Your task to perform on an android device: change notifications settings Image 0: 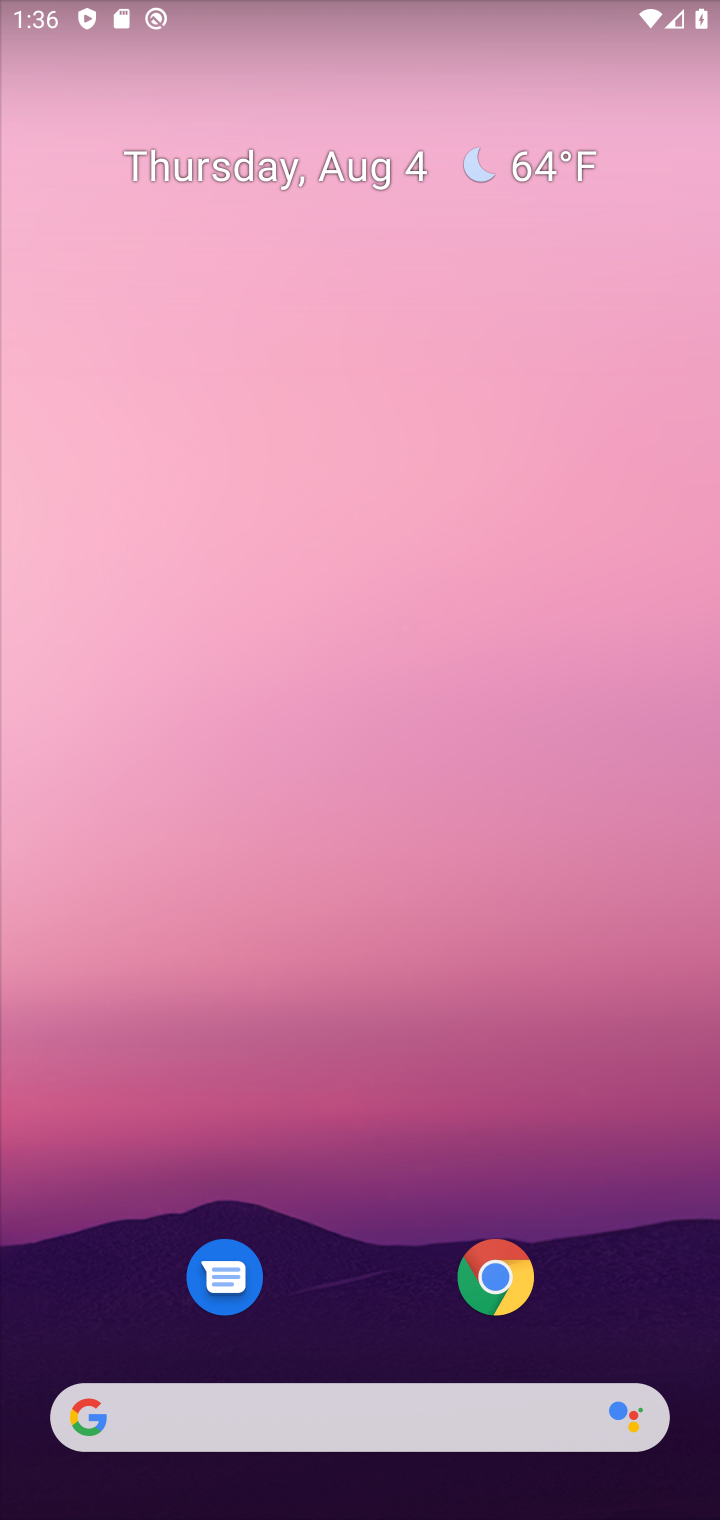
Step 0: drag from (310, 1331) to (427, 268)
Your task to perform on an android device: change notifications settings Image 1: 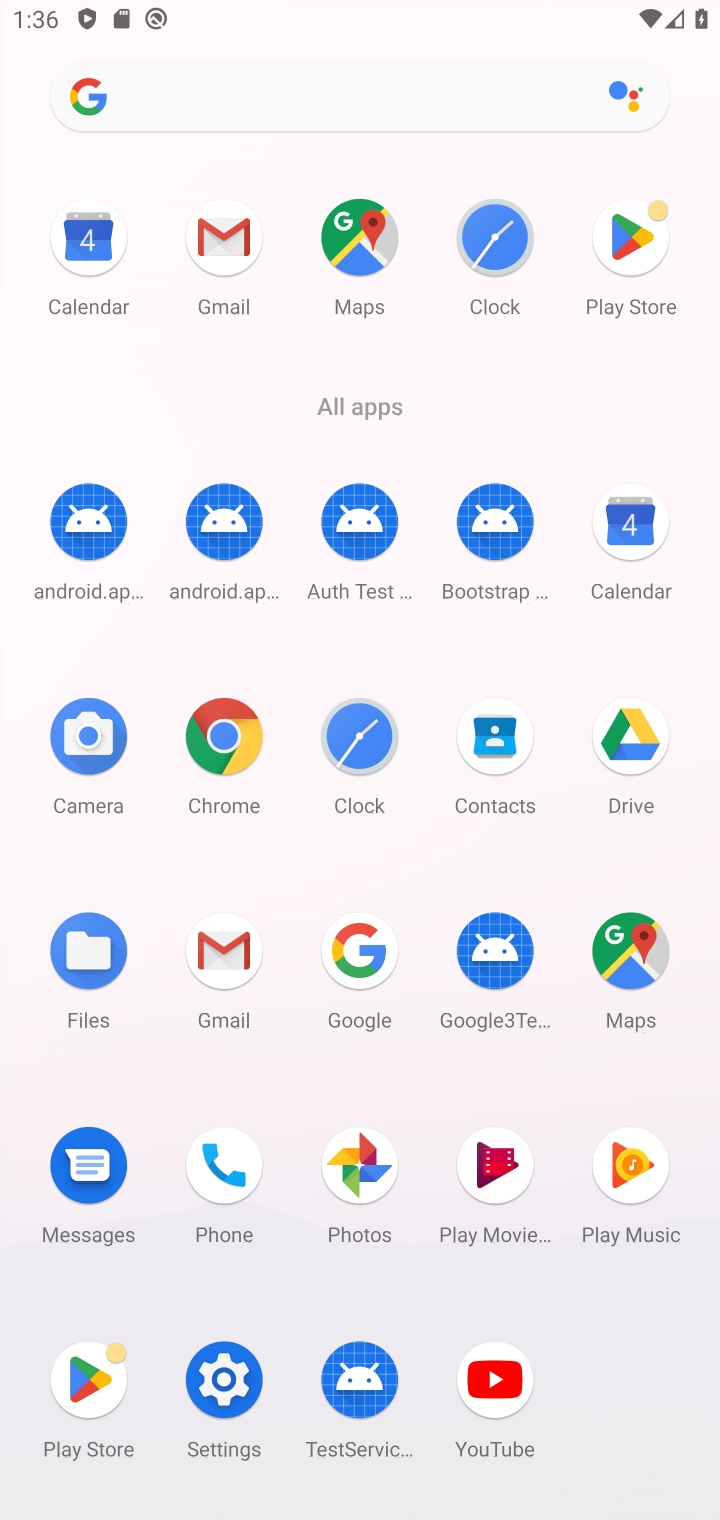
Step 1: click (221, 1379)
Your task to perform on an android device: change notifications settings Image 2: 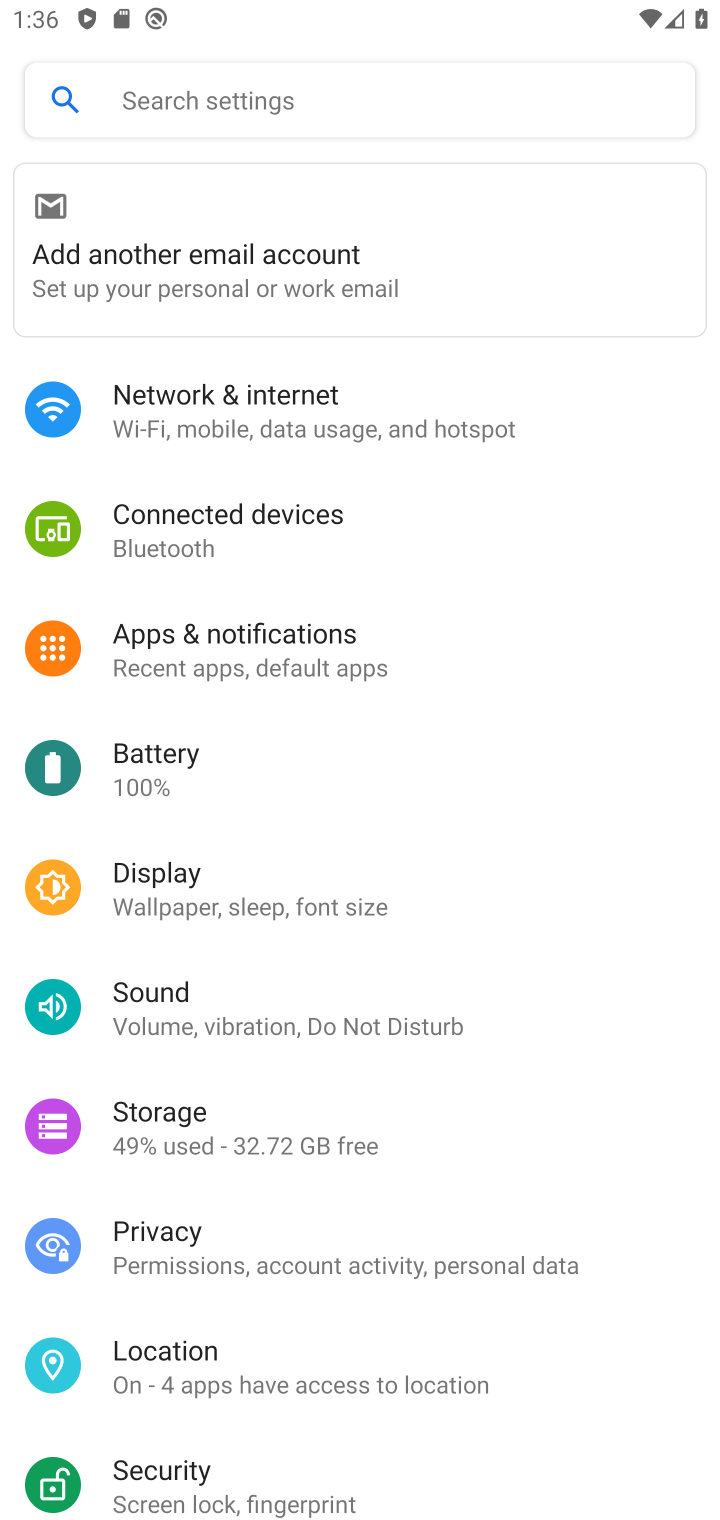
Step 2: click (276, 643)
Your task to perform on an android device: change notifications settings Image 3: 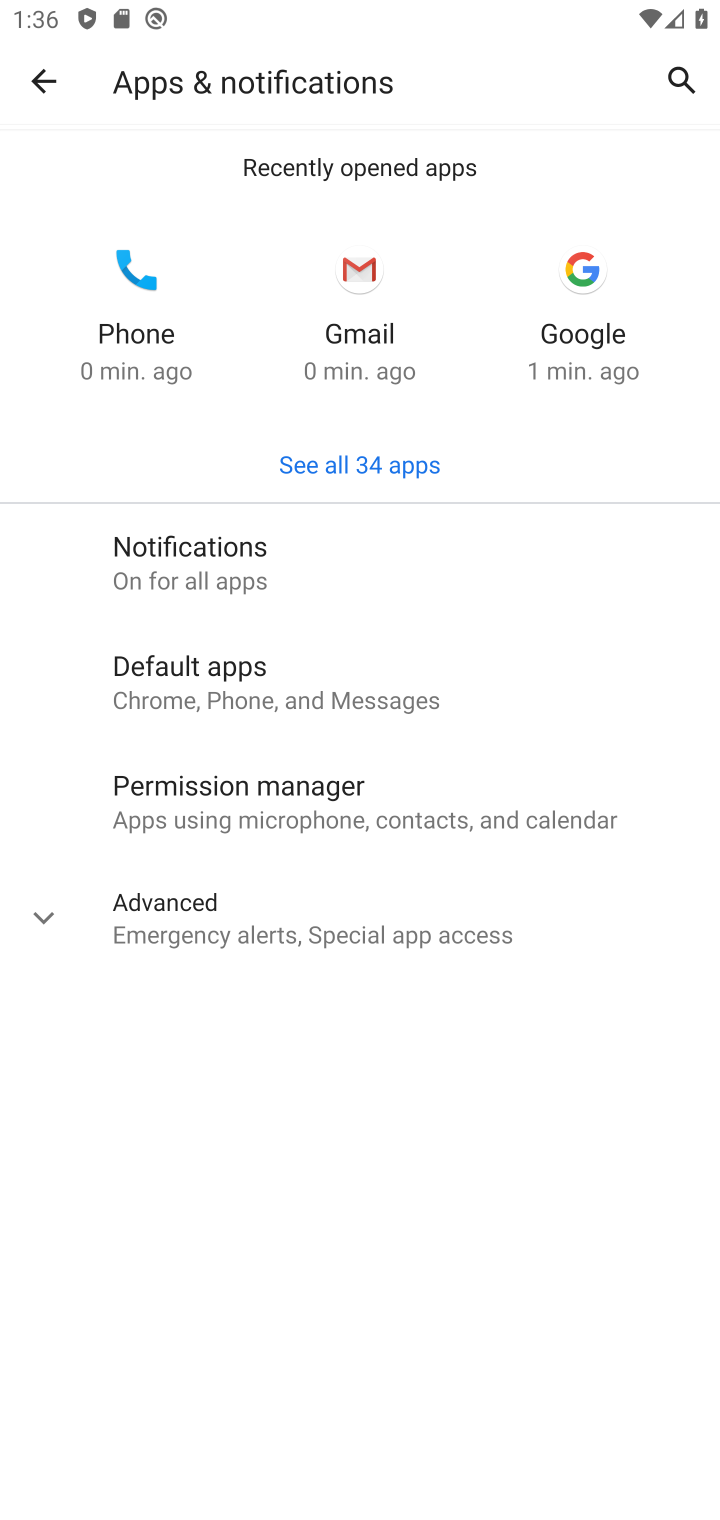
Step 3: click (235, 548)
Your task to perform on an android device: change notifications settings Image 4: 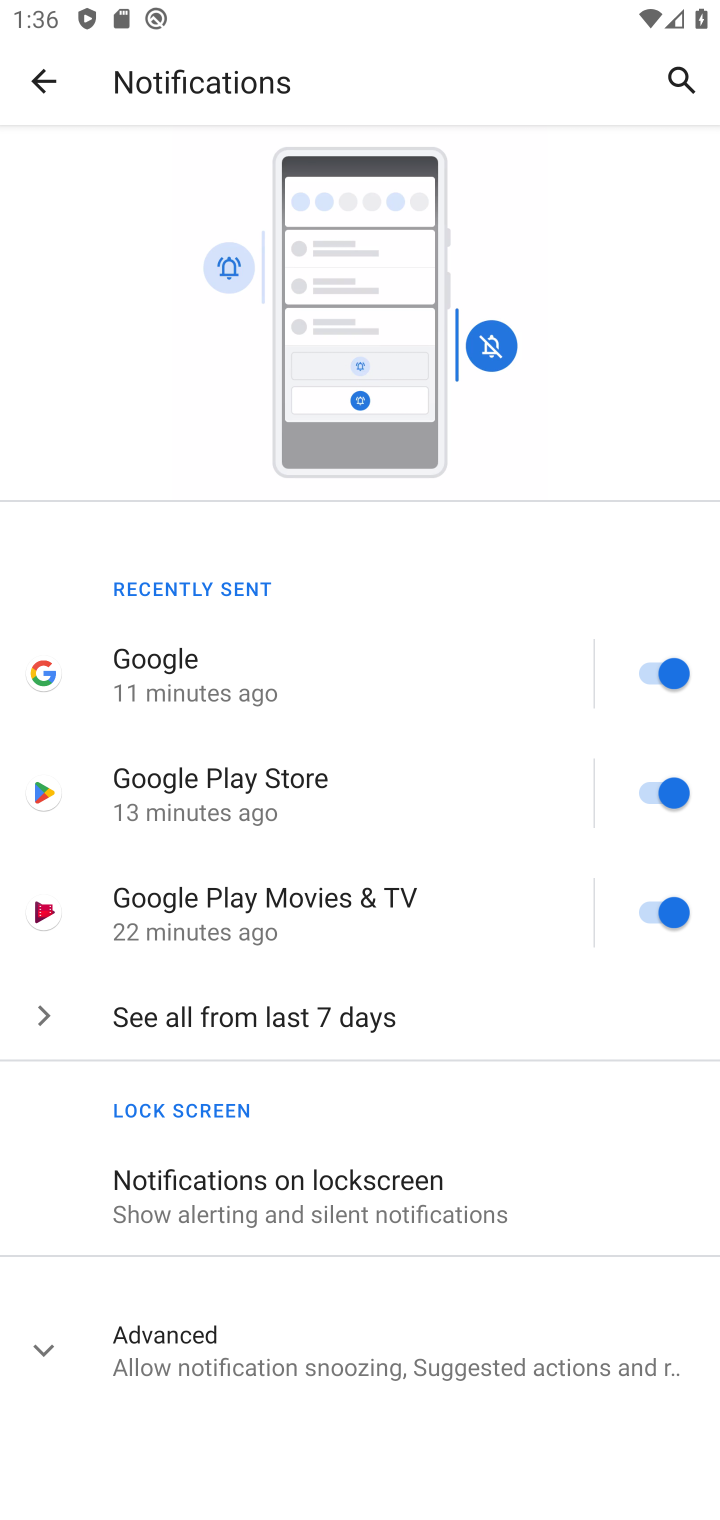
Step 4: click (338, 1015)
Your task to perform on an android device: change notifications settings Image 5: 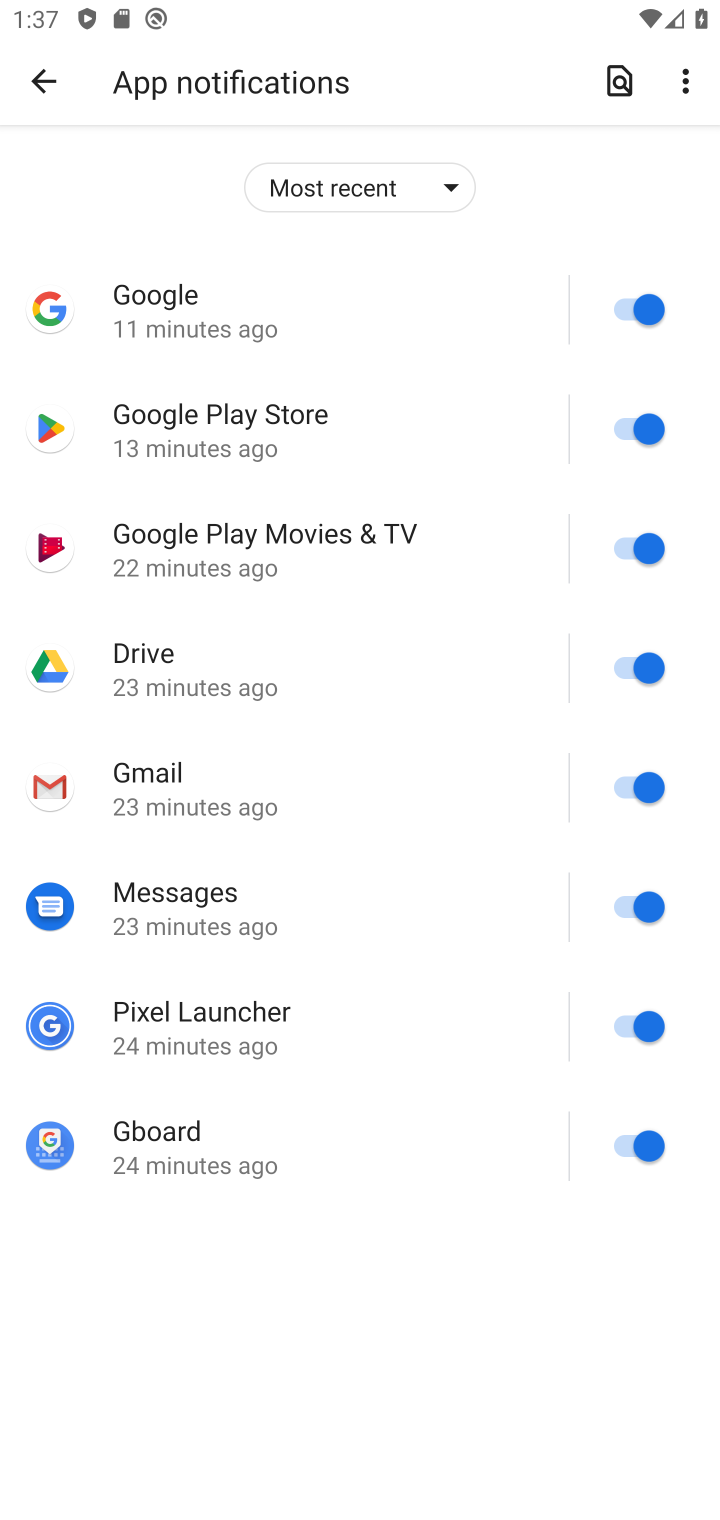
Step 5: click (610, 301)
Your task to perform on an android device: change notifications settings Image 6: 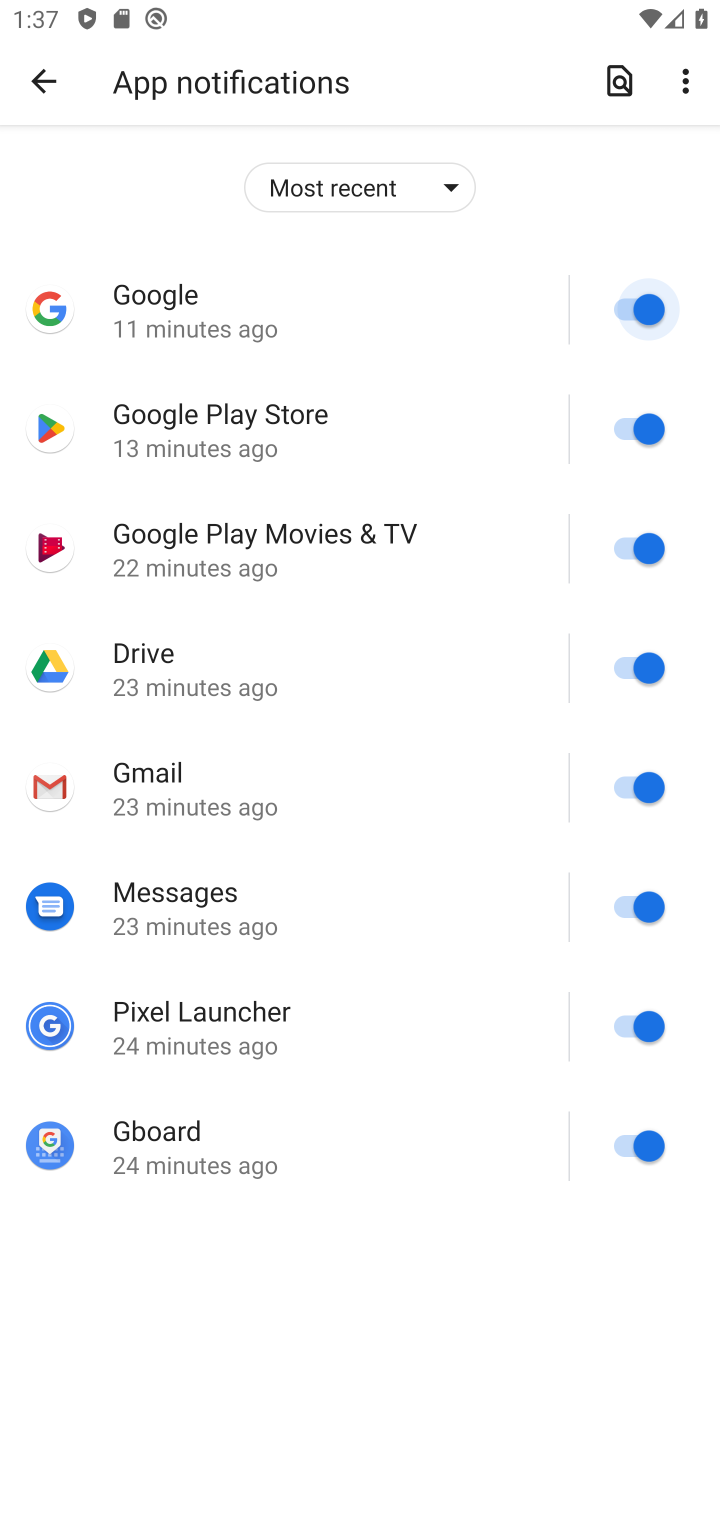
Step 6: click (642, 435)
Your task to perform on an android device: change notifications settings Image 7: 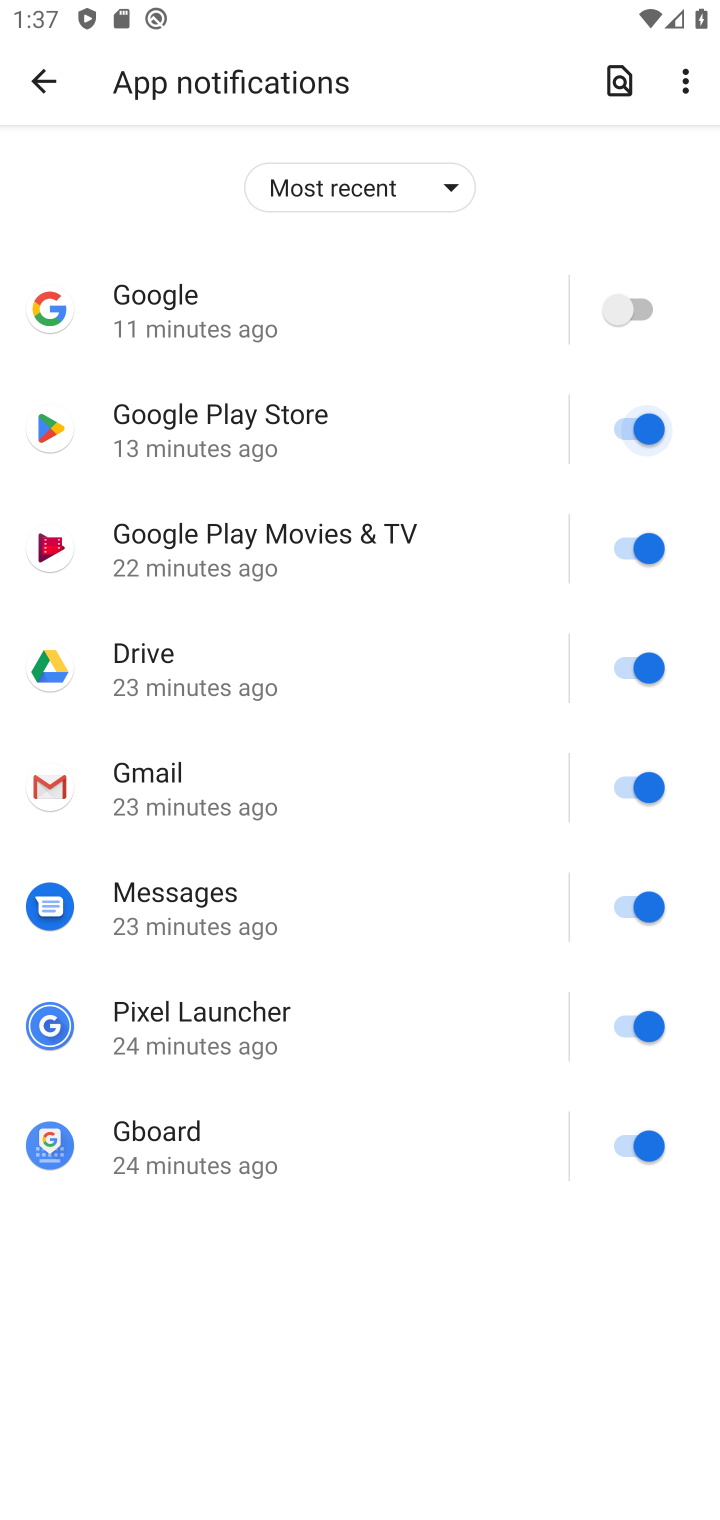
Step 7: click (622, 551)
Your task to perform on an android device: change notifications settings Image 8: 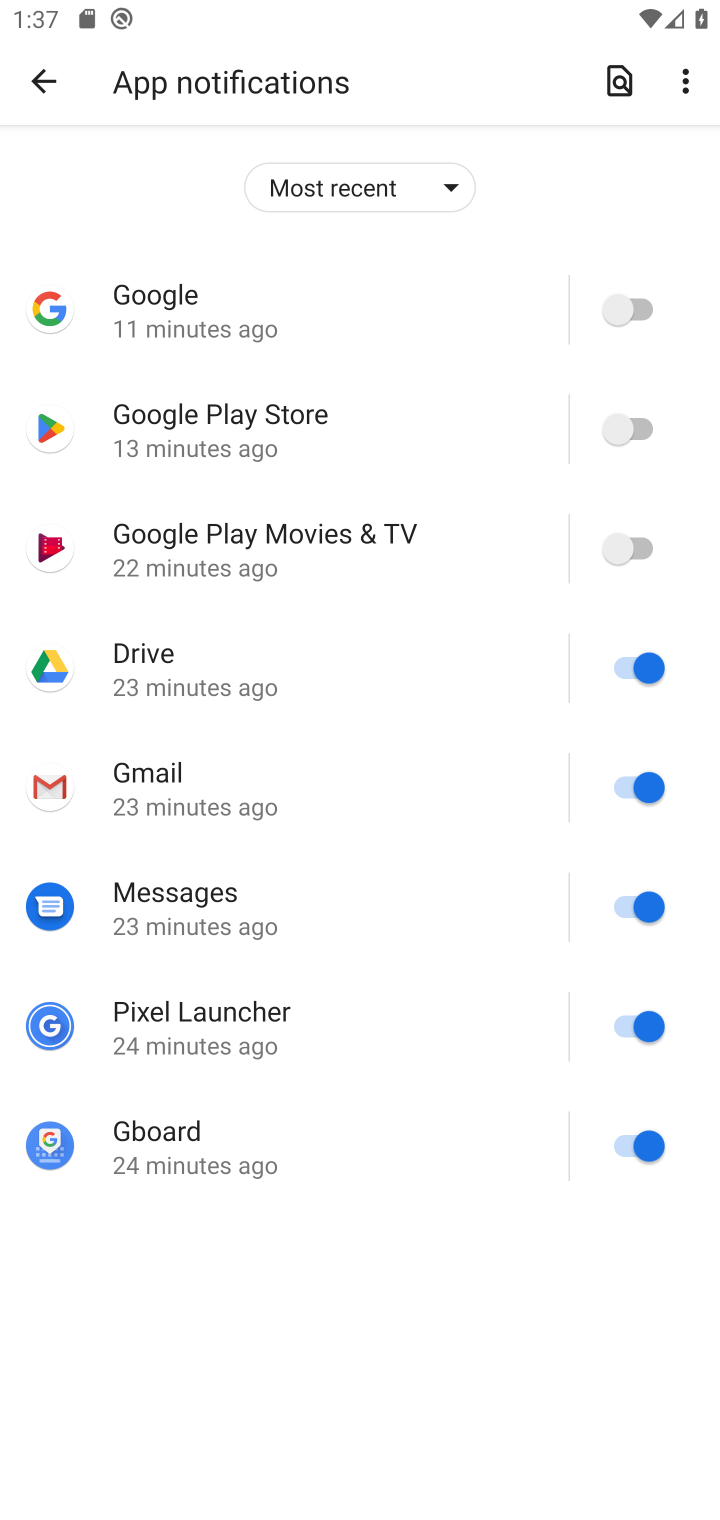
Step 8: click (622, 664)
Your task to perform on an android device: change notifications settings Image 9: 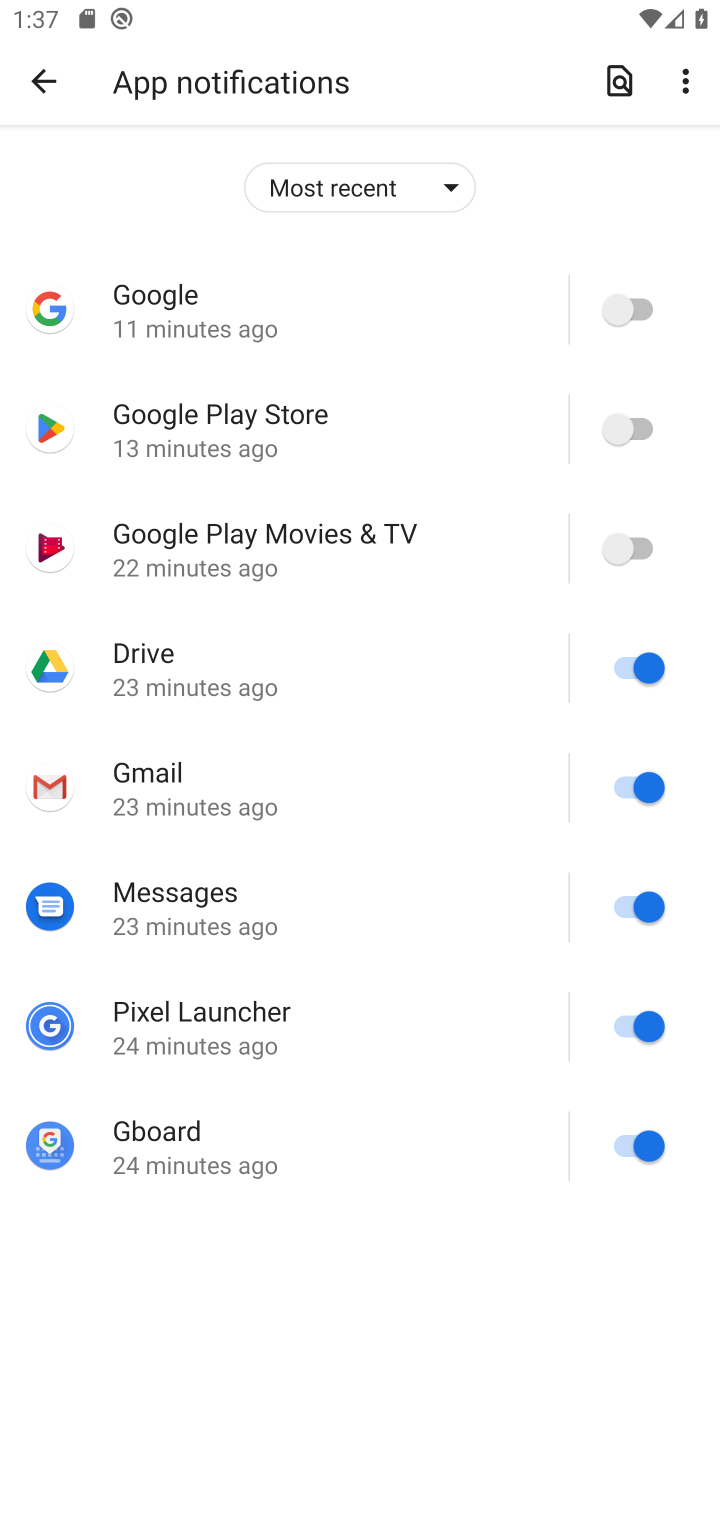
Step 9: click (626, 791)
Your task to perform on an android device: change notifications settings Image 10: 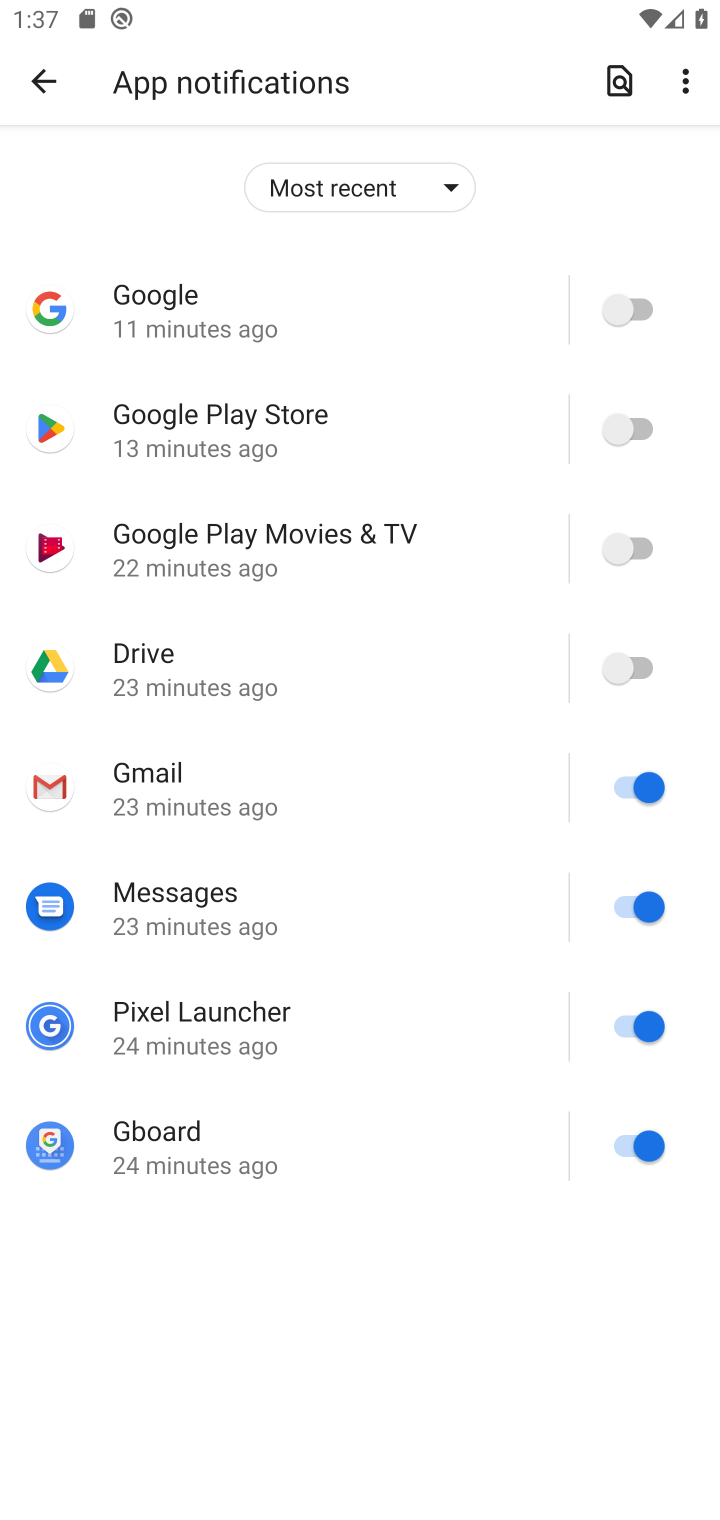
Step 10: click (621, 940)
Your task to perform on an android device: change notifications settings Image 11: 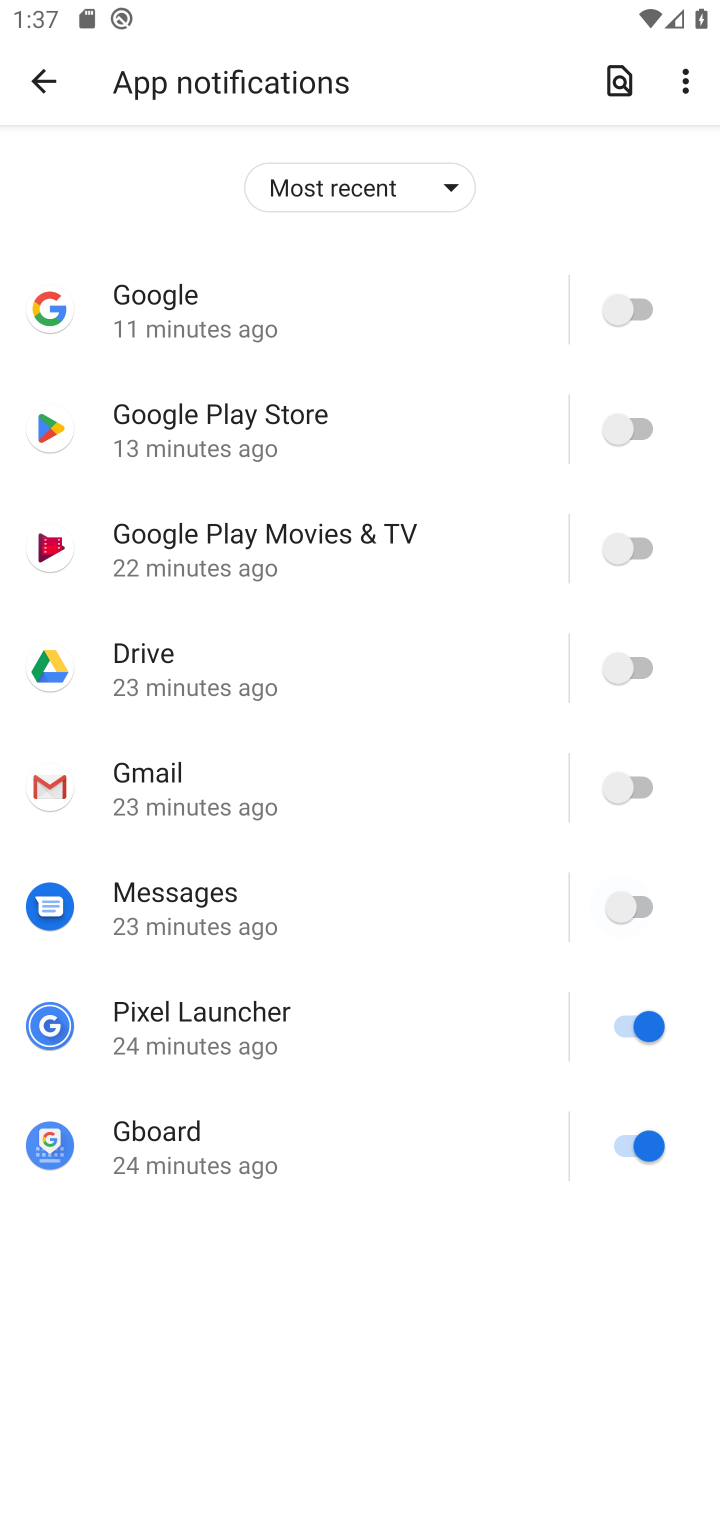
Step 11: click (621, 989)
Your task to perform on an android device: change notifications settings Image 12: 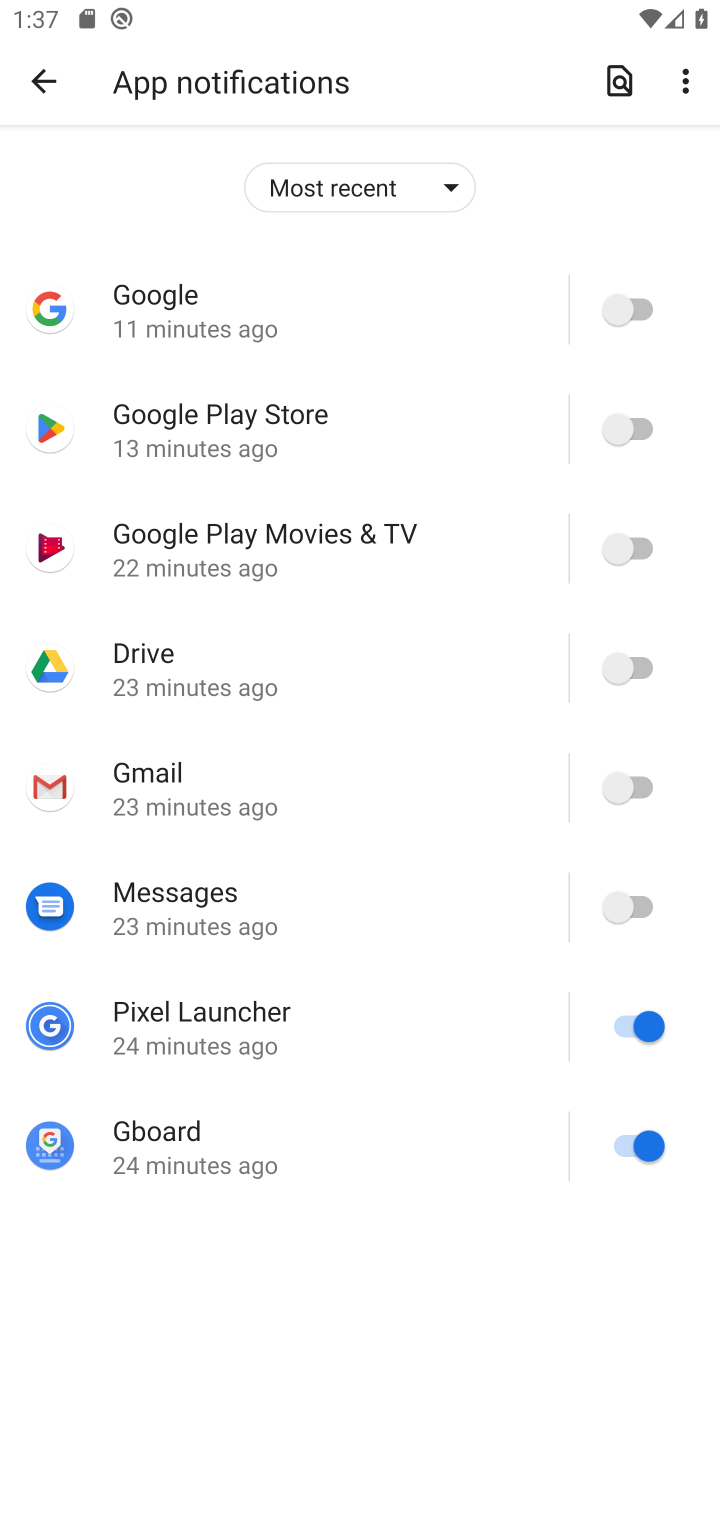
Step 12: click (626, 1131)
Your task to perform on an android device: change notifications settings Image 13: 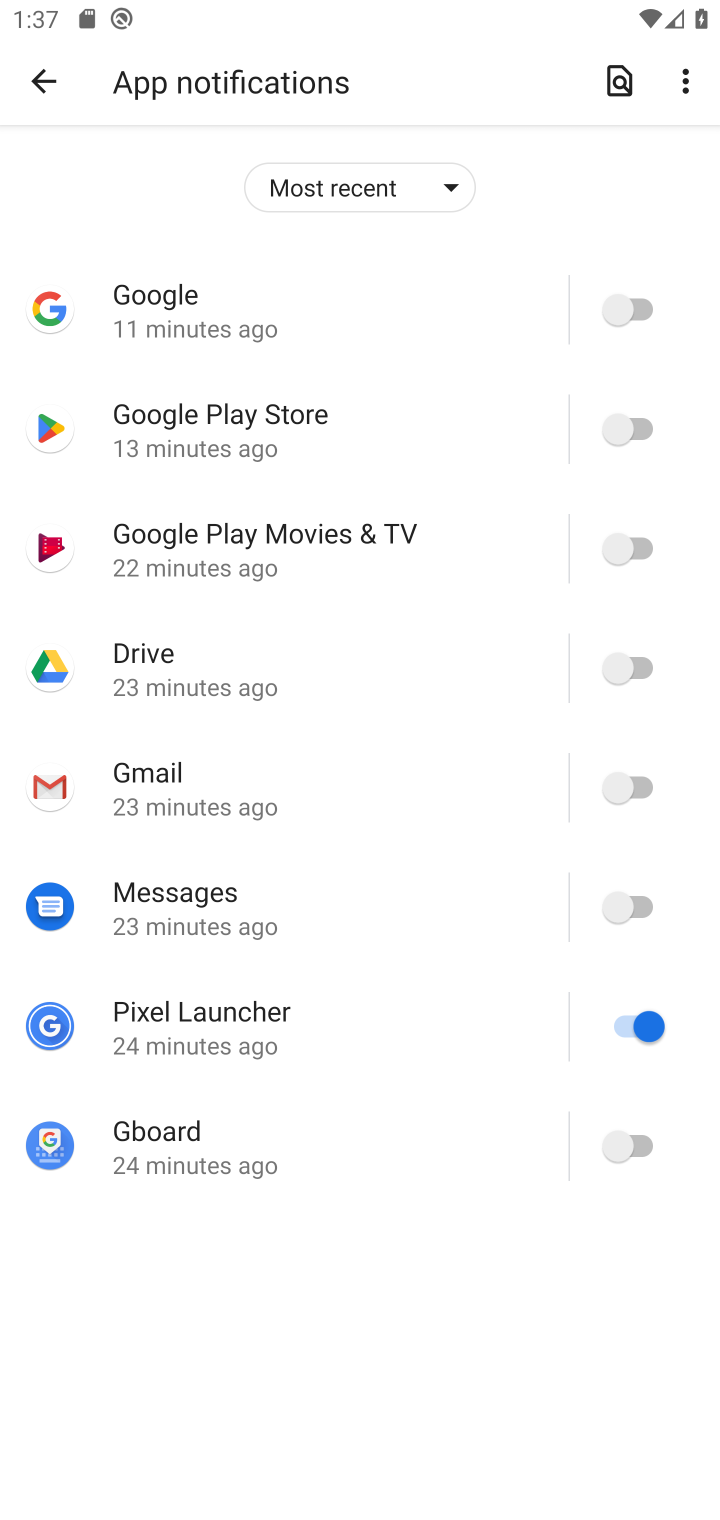
Step 13: click (626, 1024)
Your task to perform on an android device: change notifications settings Image 14: 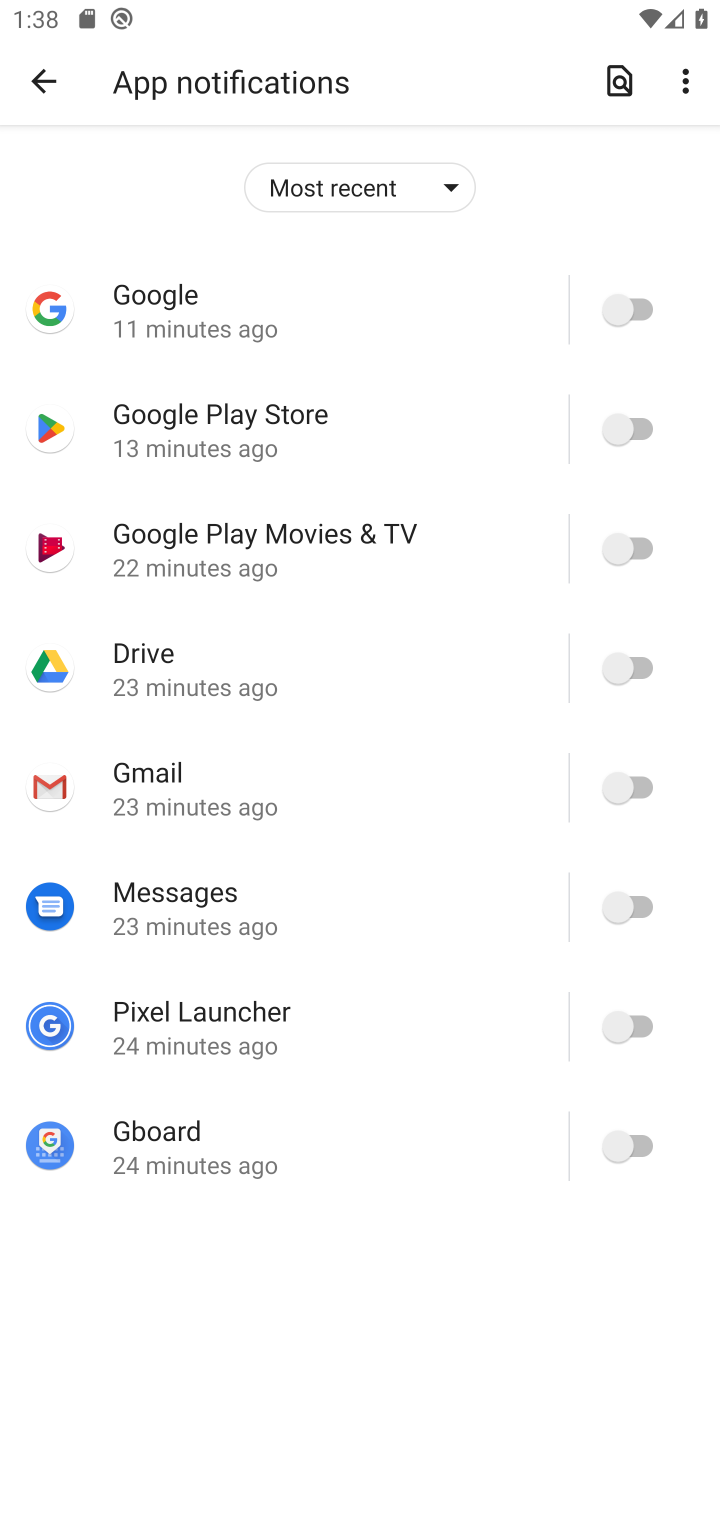
Step 14: task complete